Your task to perform on an android device: Go to Amazon Image 0: 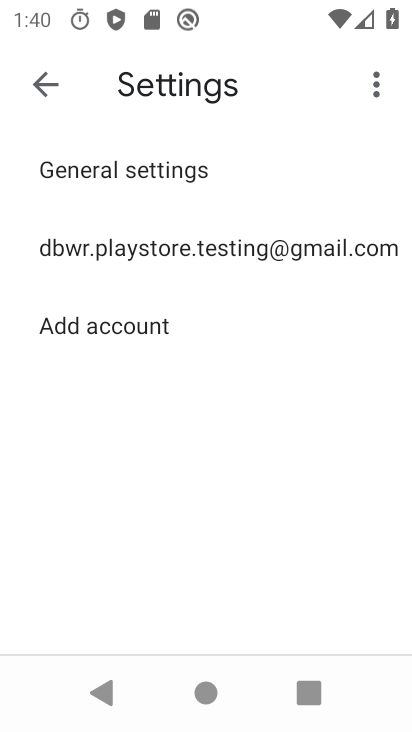
Step 0: press home button
Your task to perform on an android device: Go to Amazon Image 1: 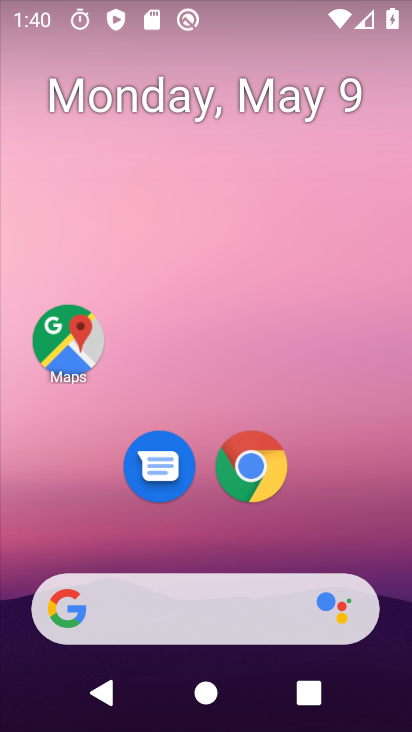
Step 1: drag from (181, 635) to (173, 389)
Your task to perform on an android device: Go to Amazon Image 2: 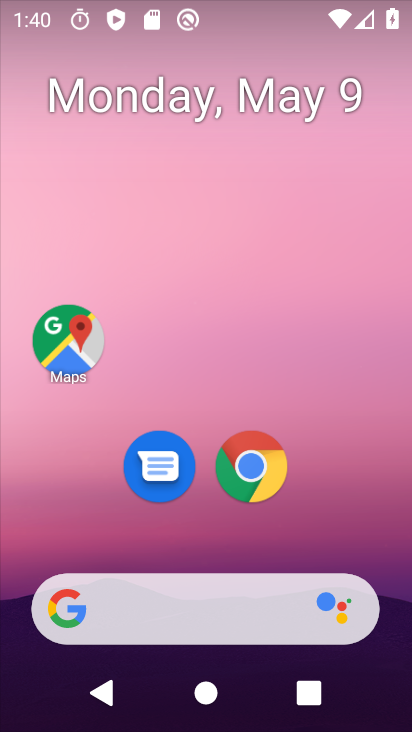
Step 2: drag from (228, 574) to (203, 353)
Your task to perform on an android device: Go to Amazon Image 3: 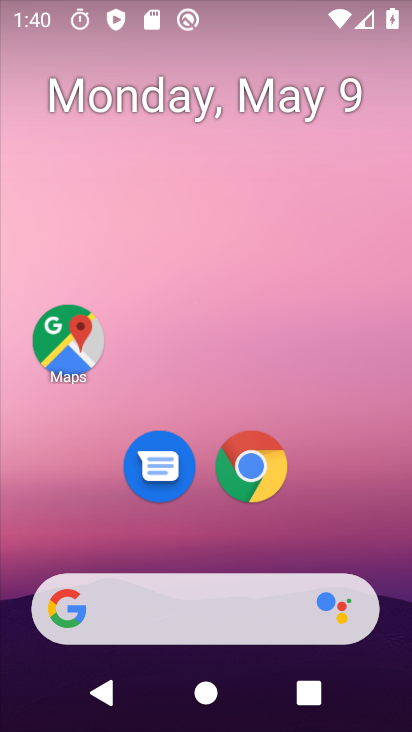
Step 3: click (244, 478)
Your task to perform on an android device: Go to Amazon Image 4: 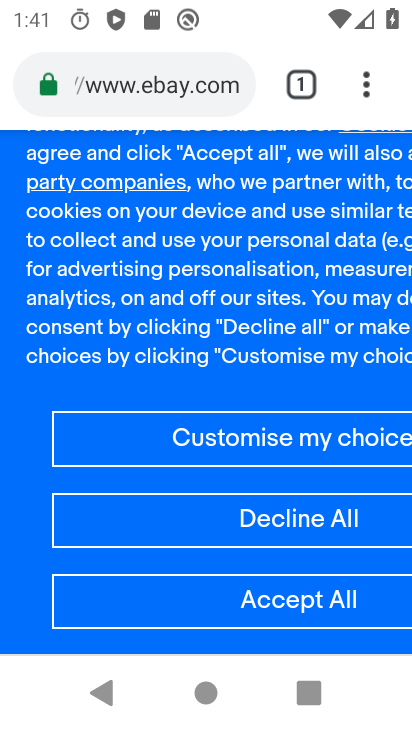
Step 4: click (171, 144)
Your task to perform on an android device: Go to Amazon Image 5: 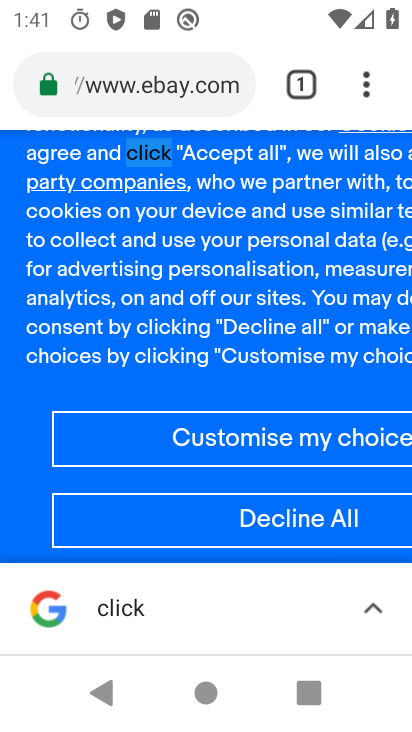
Step 5: click (193, 72)
Your task to perform on an android device: Go to Amazon Image 6: 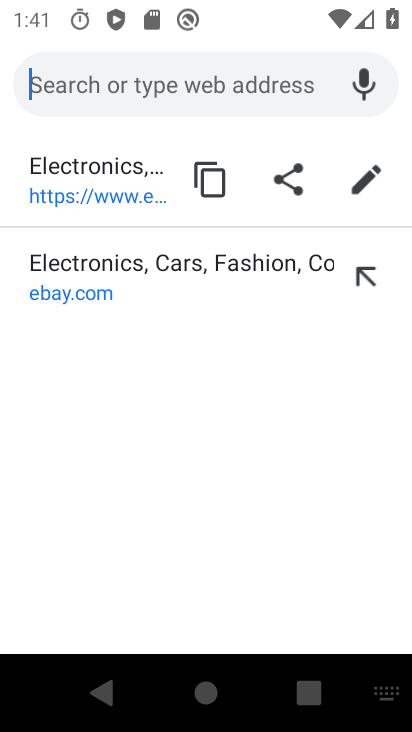
Step 6: type "amazon"
Your task to perform on an android device: Go to Amazon Image 7: 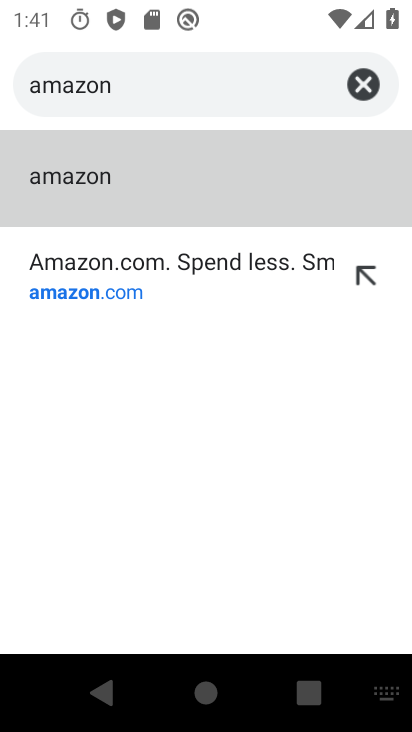
Step 7: click (231, 279)
Your task to perform on an android device: Go to Amazon Image 8: 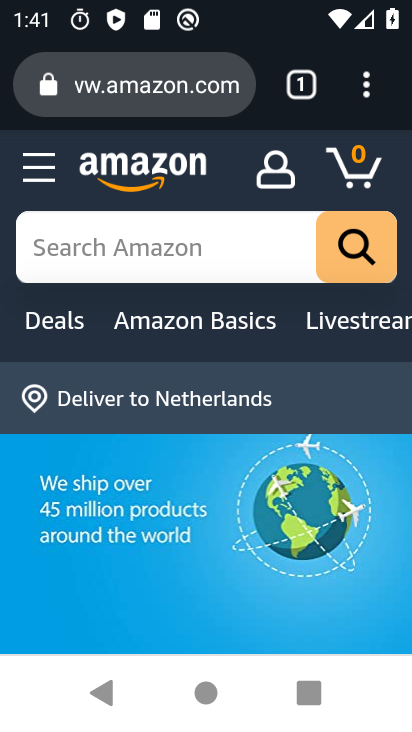
Step 8: task complete